Your task to perform on an android device: toggle location history Image 0: 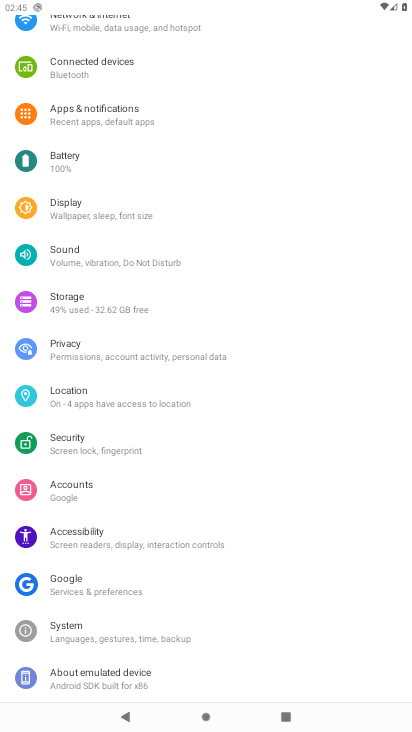
Step 0: click (127, 637)
Your task to perform on an android device: toggle location history Image 1: 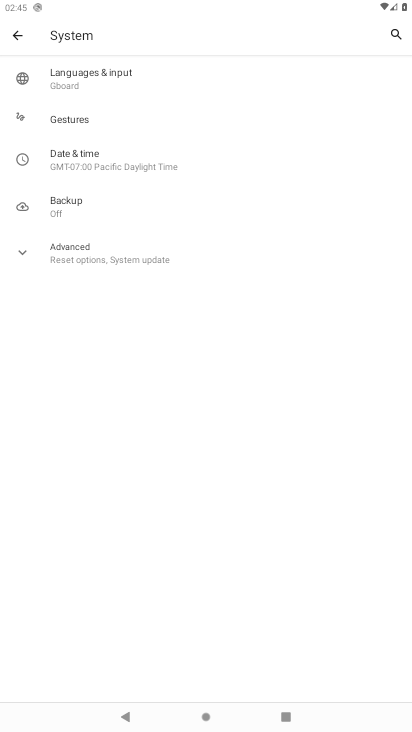
Step 1: task complete